Your task to perform on an android device: Do I have any events tomorrow? Image 0: 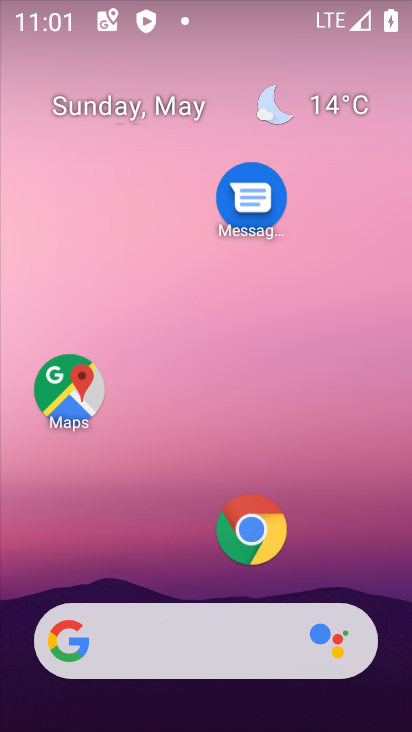
Step 0: drag from (185, 576) to (191, 333)
Your task to perform on an android device: Do I have any events tomorrow? Image 1: 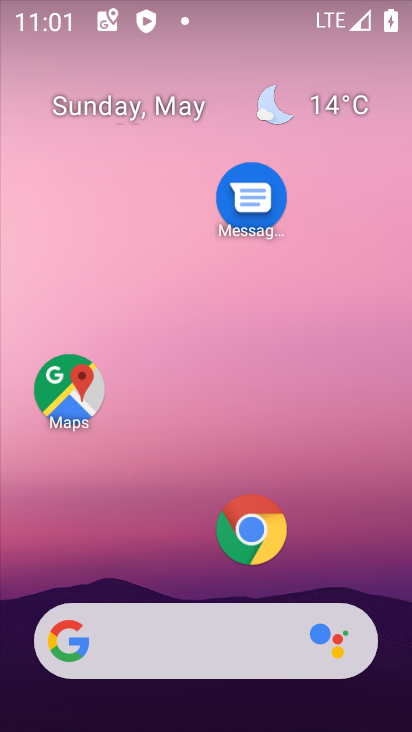
Step 1: drag from (126, 534) to (181, 3)
Your task to perform on an android device: Do I have any events tomorrow? Image 2: 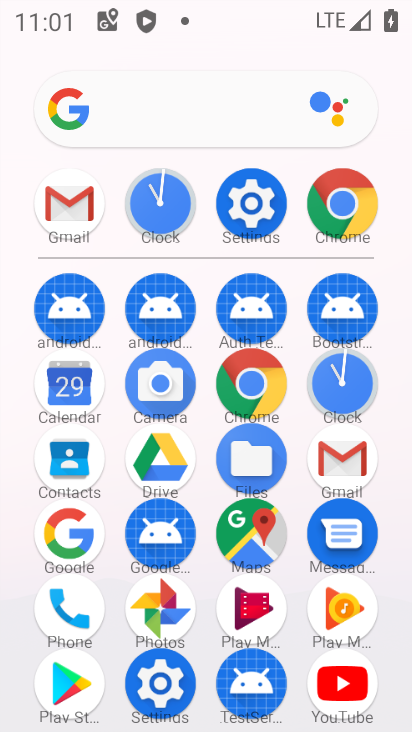
Step 2: click (67, 394)
Your task to perform on an android device: Do I have any events tomorrow? Image 3: 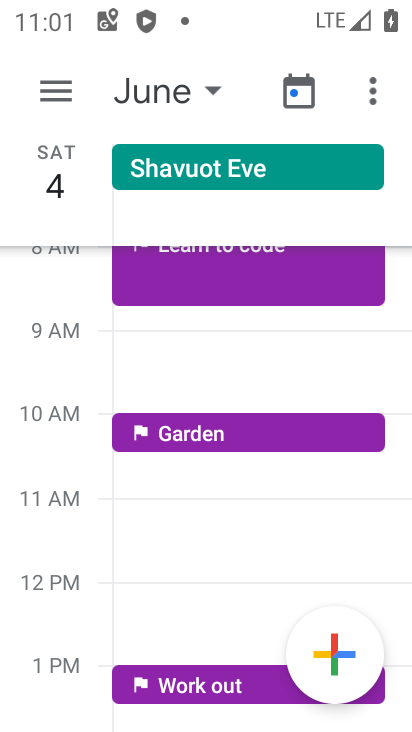
Step 3: click (56, 92)
Your task to perform on an android device: Do I have any events tomorrow? Image 4: 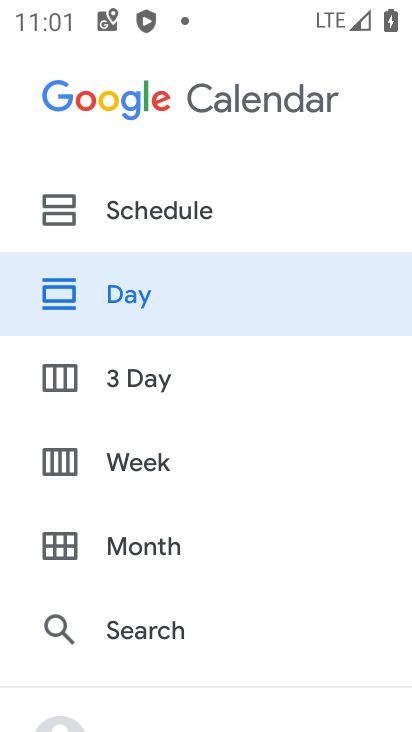
Step 4: drag from (125, 580) to (195, 140)
Your task to perform on an android device: Do I have any events tomorrow? Image 5: 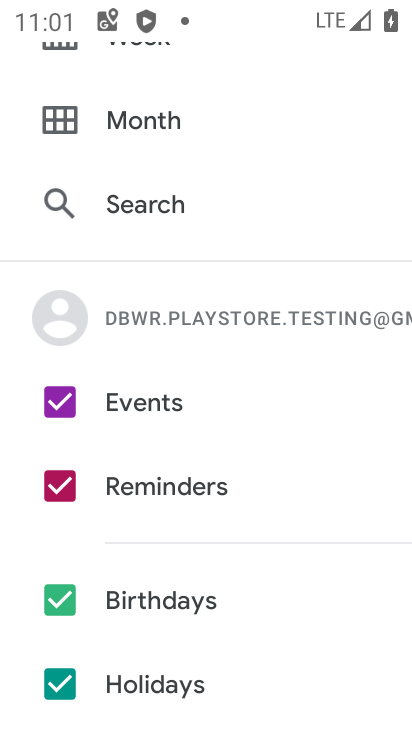
Step 5: click (149, 488)
Your task to perform on an android device: Do I have any events tomorrow? Image 6: 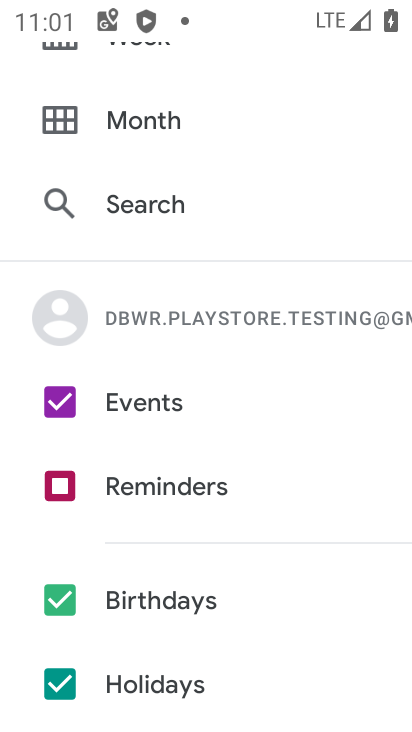
Step 6: click (122, 615)
Your task to perform on an android device: Do I have any events tomorrow? Image 7: 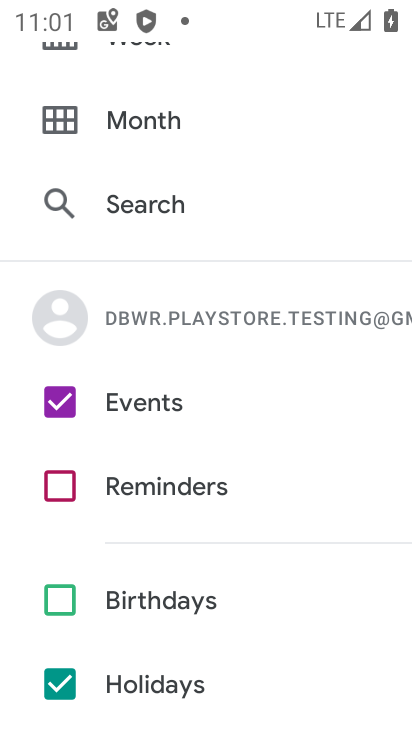
Step 7: click (121, 696)
Your task to perform on an android device: Do I have any events tomorrow? Image 8: 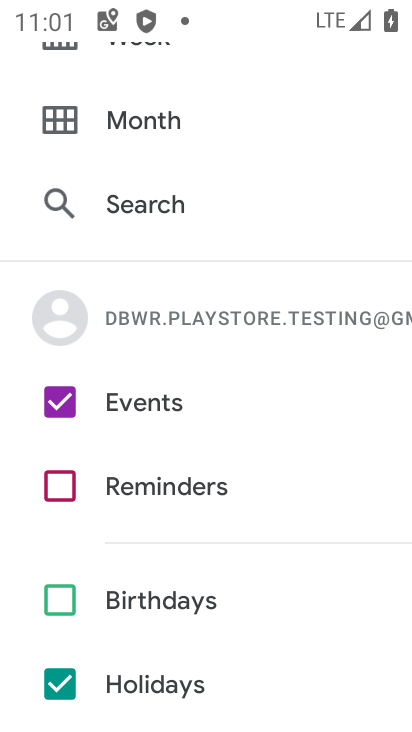
Step 8: click (121, 685)
Your task to perform on an android device: Do I have any events tomorrow? Image 9: 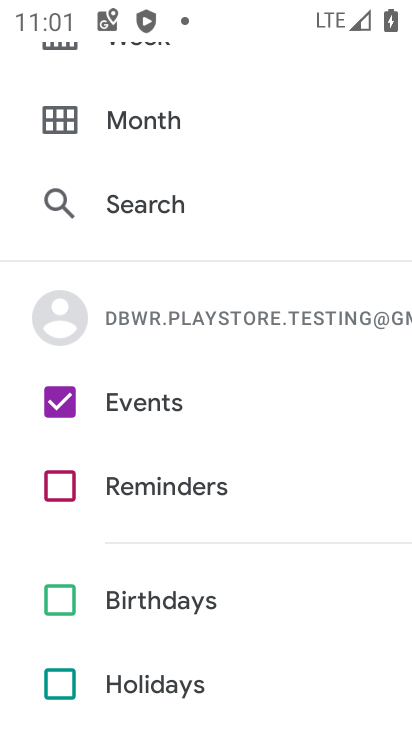
Step 9: drag from (254, 220) to (242, 694)
Your task to perform on an android device: Do I have any events tomorrow? Image 10: 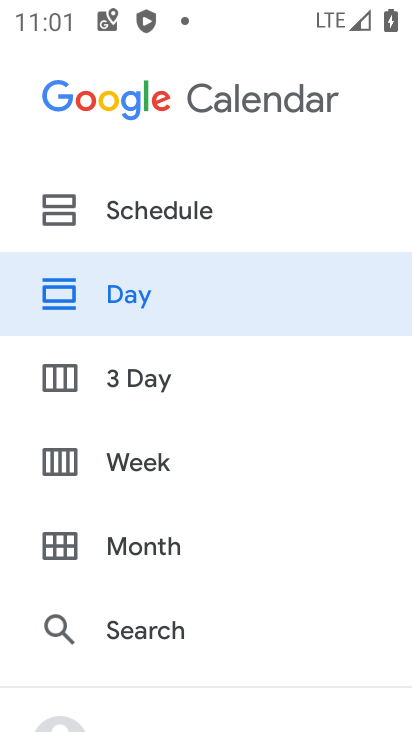
Step 10: click (178, 386)
Your task to perform on an android device: Do I have any events tomorrow? Image 11: 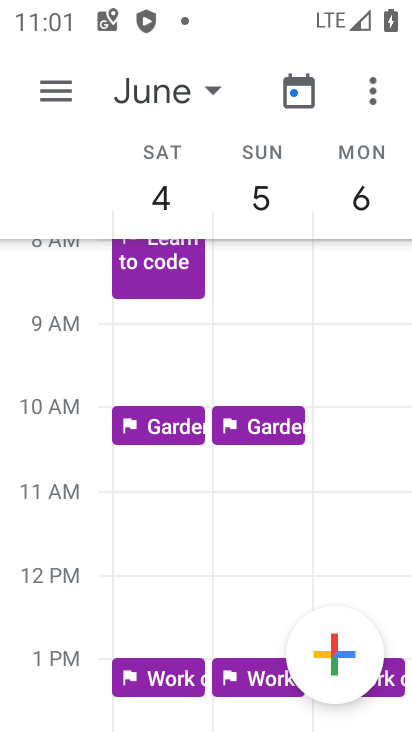
Step 11: task complete